Your task to perform on an android device: turn pop-ups on in chrome Image 0: 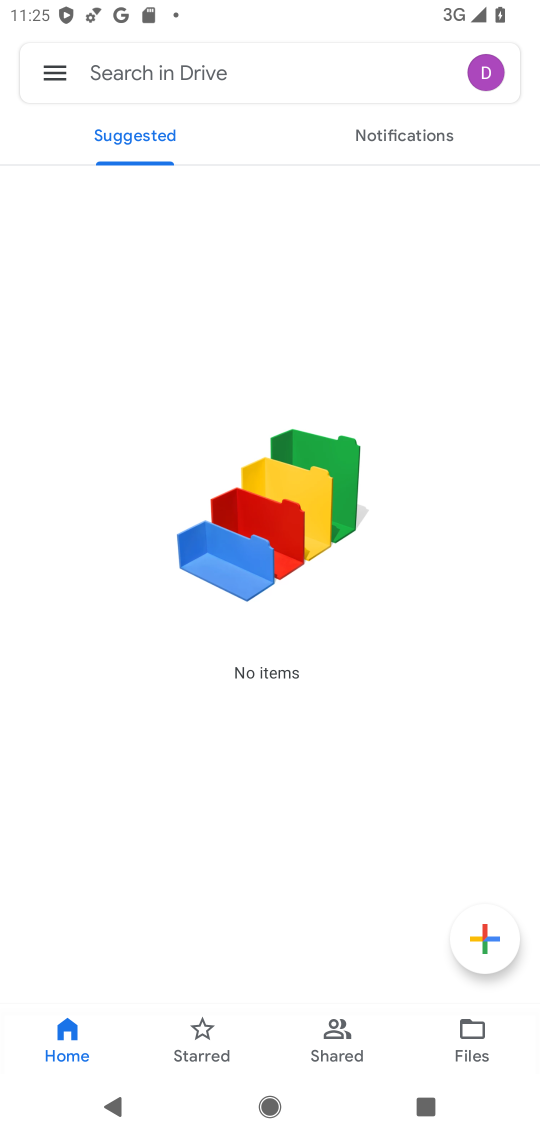
Step 0: press home button
Your task to perform on an android device: turn pop-ups on in chrome Image 1: 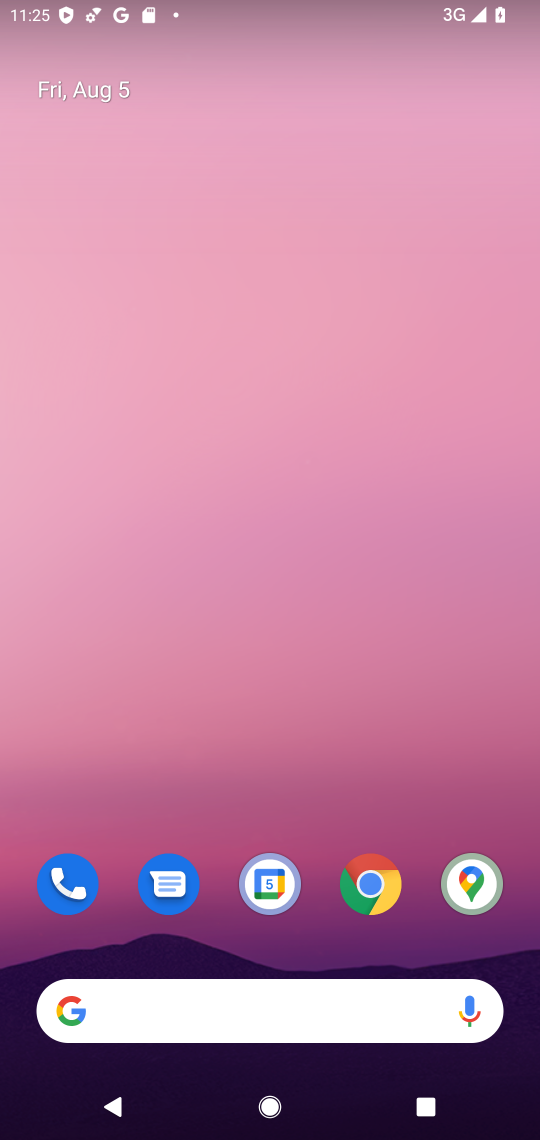
Step 1: click (358, 878)
Your task to perform on an android device: turn pop-ups on in chrome Image 2: 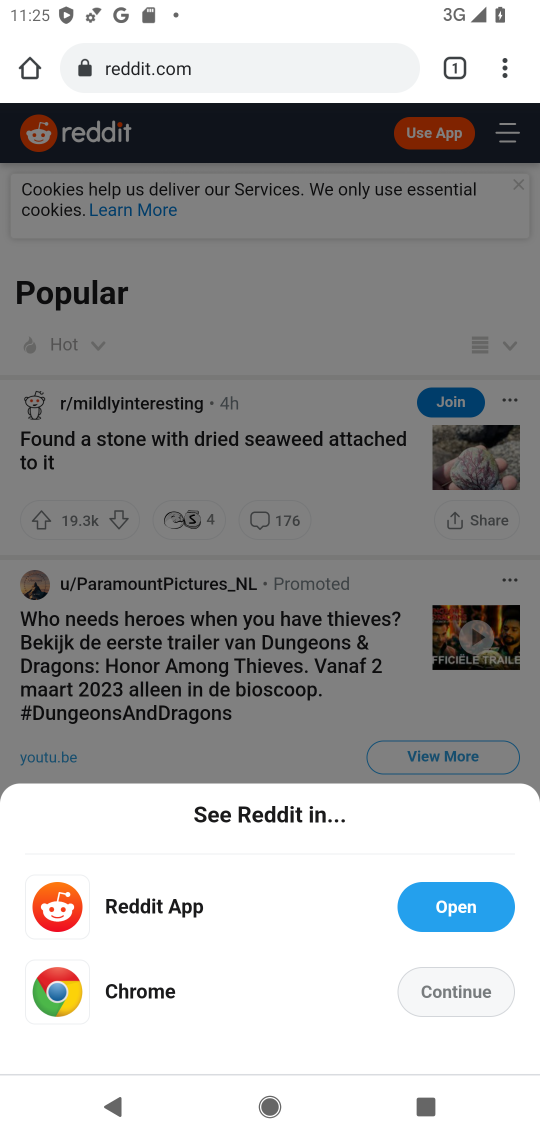
Step 2: click (509, 58)
Your task to perform on an android device: turn pop-ups on in chrome Image 3: 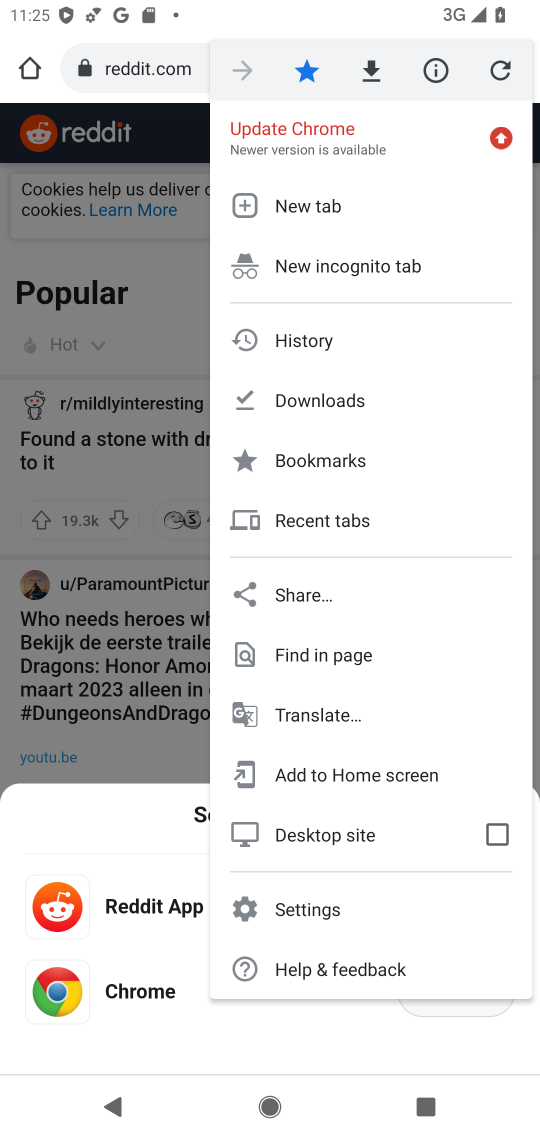
Step 3: click (384, 914)
Your task to perform on an android device: turn pop-ups on in chrome Image 4: 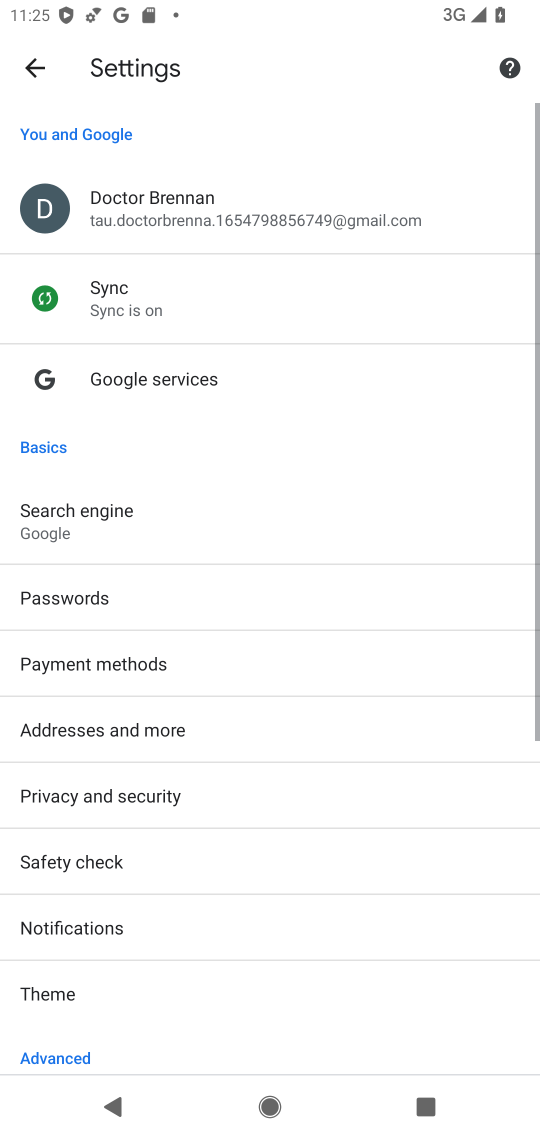
Step 4: drag from (273, 902) to (300, 52)
Your task to perform on an android device: turn pop-ups on in chrome Image 5: 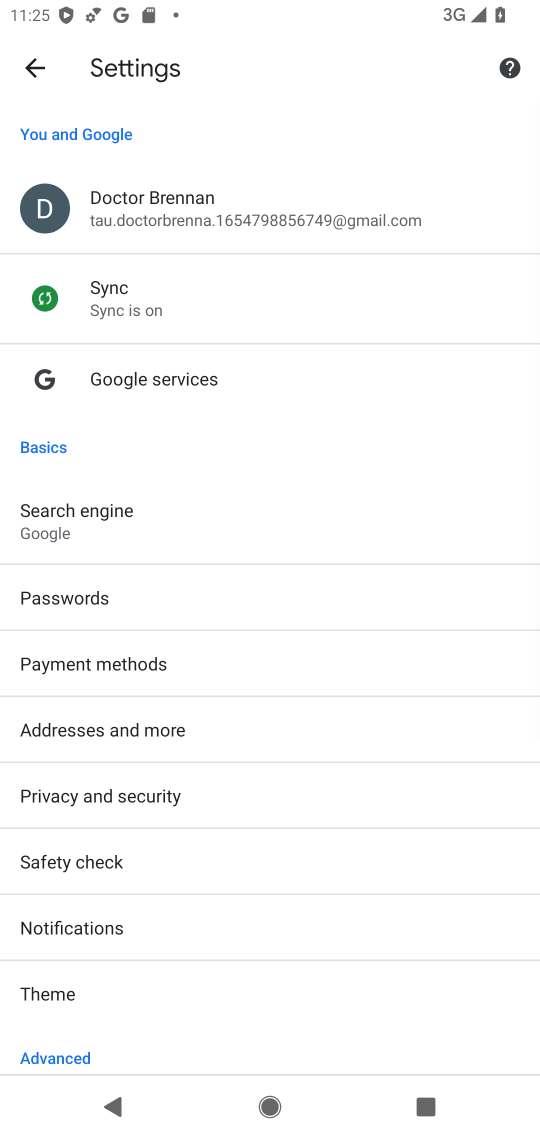
Step 5: drag from (339, 784) to (339, 393)
Your task to perform on an android device: turn pop-ups on in chrome Image 6: 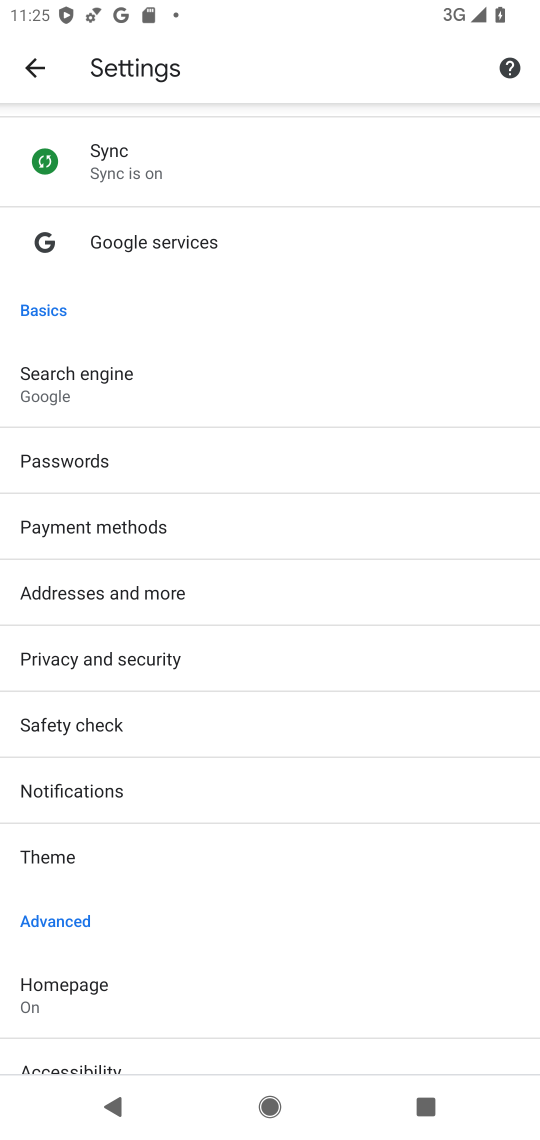
Step 6: drag from (315, 1050) to (315, 364)
Your task to perform on an android device: turn pop-ups on in chrome Image 7: 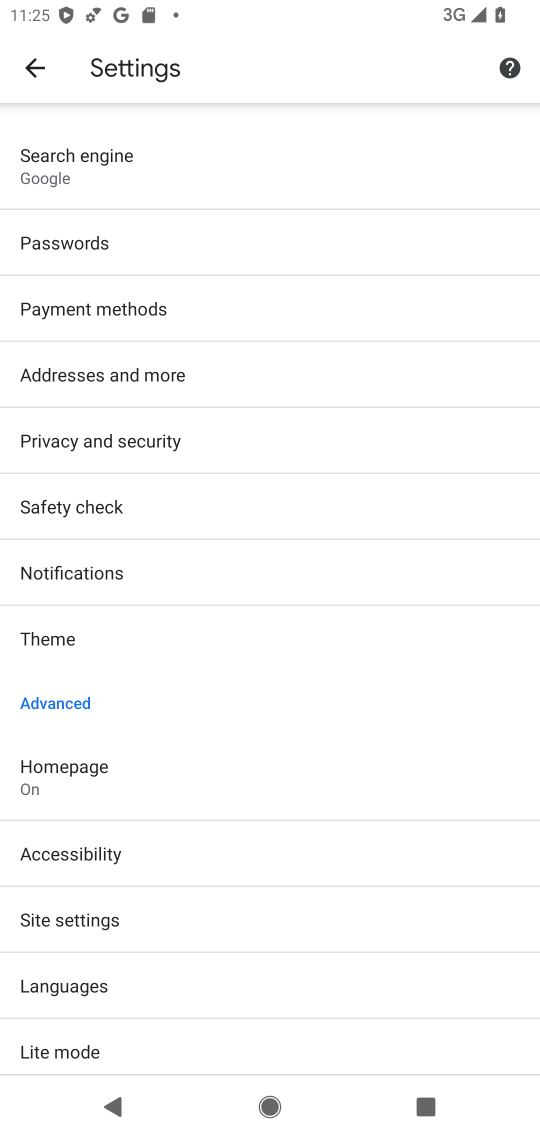
Step 7: click (242, 910)
Your task to perform on an android device: turn pop-ups on in chrome Image 8: 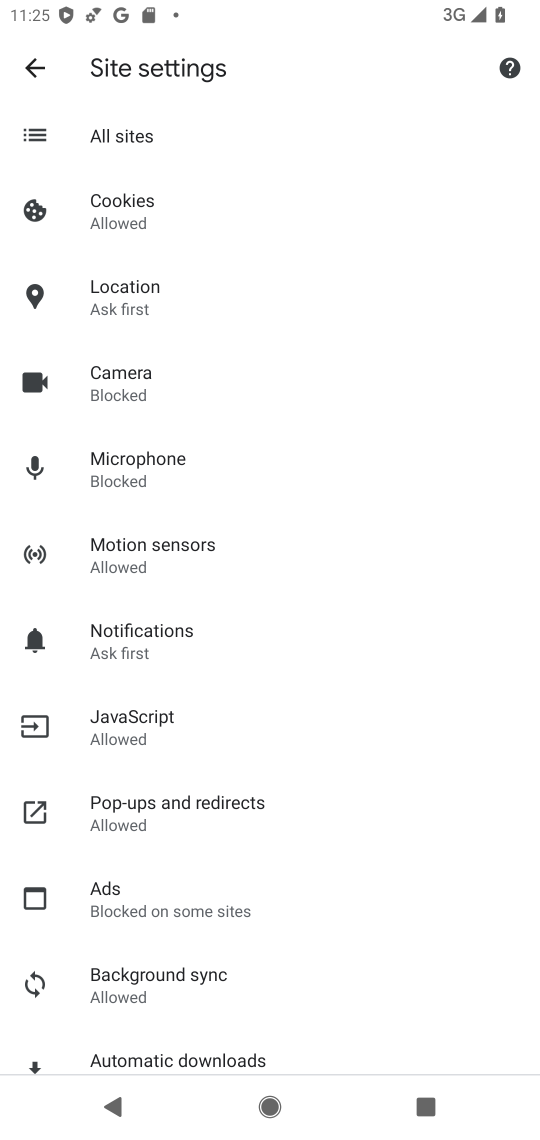
Step 8: click (256, 808)
Your task to perform on an android device: turn pop-ups on in chrome Image 9: 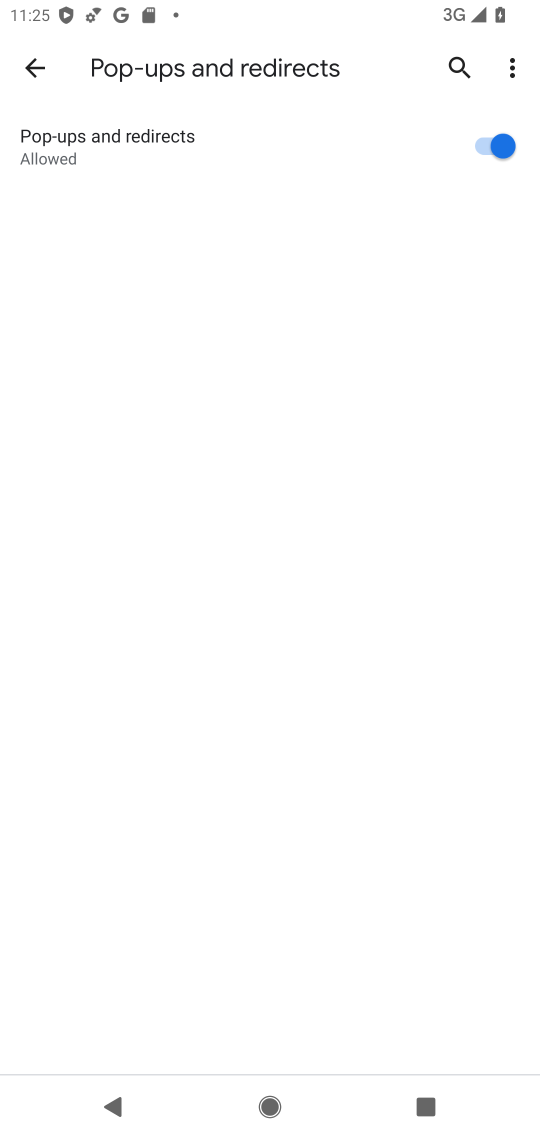
Step 9: task complete